Your task to perform on an android device: set the timer Image 0: 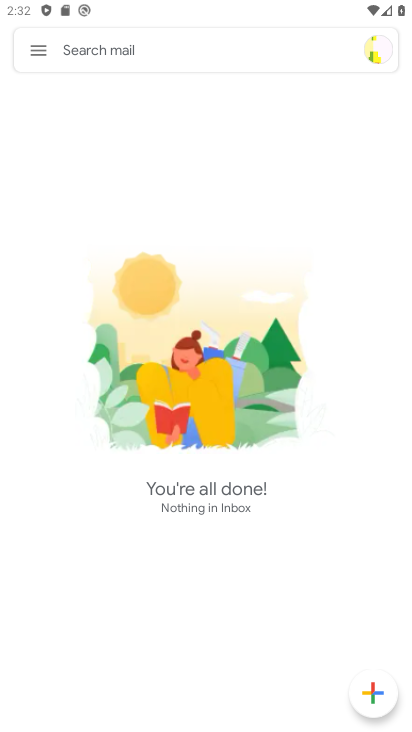
Step 0: press home button
Your task to perform on an android device: set the timer Image 1: 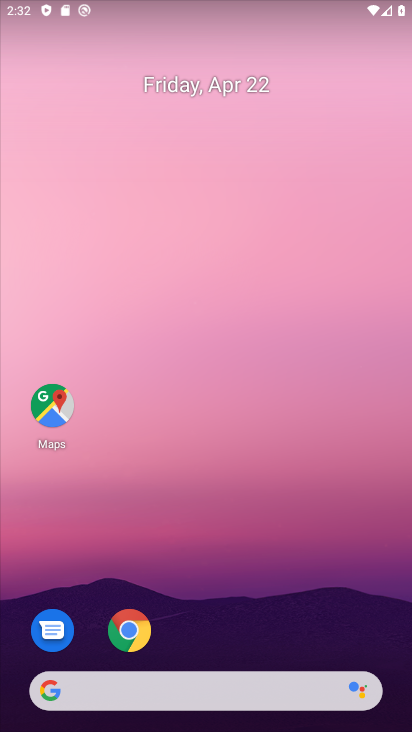
Step 1: drag from (396, 640) to (371, 153)
Your task to perform on an android device: set the timer Image 2: 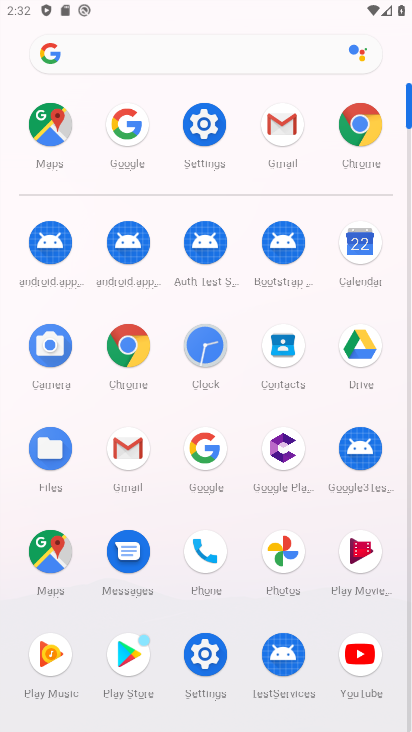
Step 2: click (202, 355)
Your task to perform on an android device: set the timer Image 3: 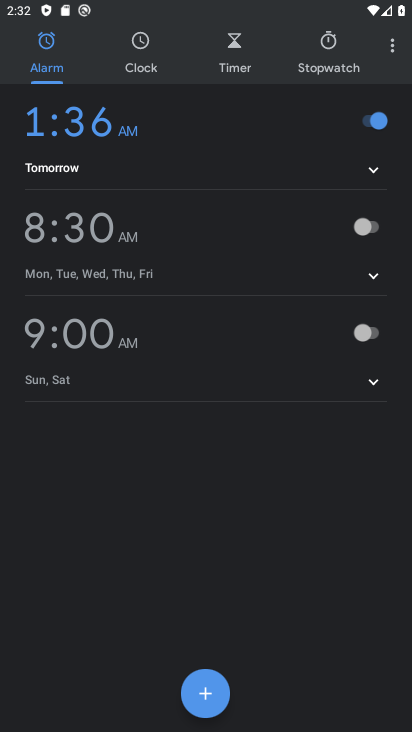
Step 3: click (241, 39)
Your task to perform on an android device: set the timer Image 4: 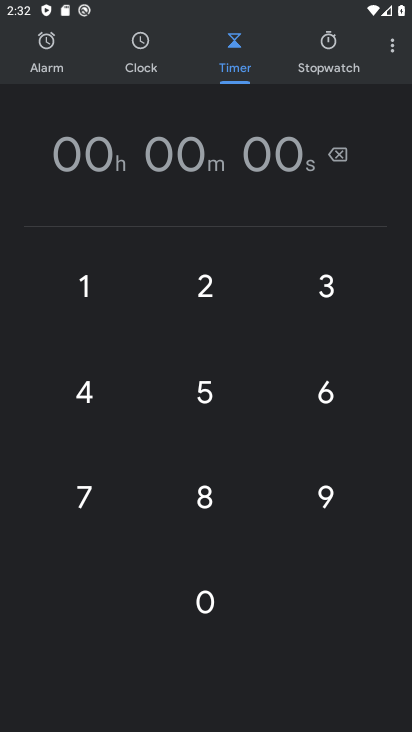
Step 4: click (106, 291)
Your task to perform on an android device: set the timer Image 5: 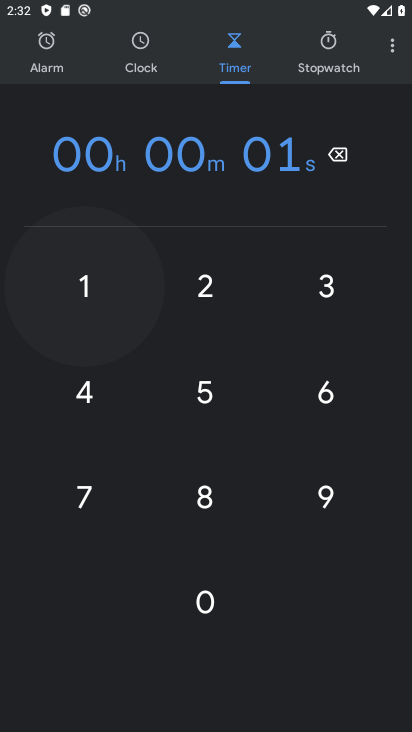
Step 5: click (197, 403)
Your task to perform on an android device: set the timer Image 6: 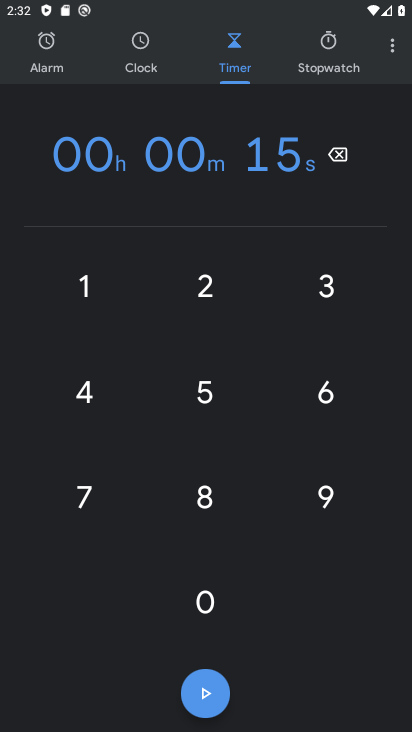
Step 6: click (206, 686)
Your task to perform on an android device: set the timer Image 7: 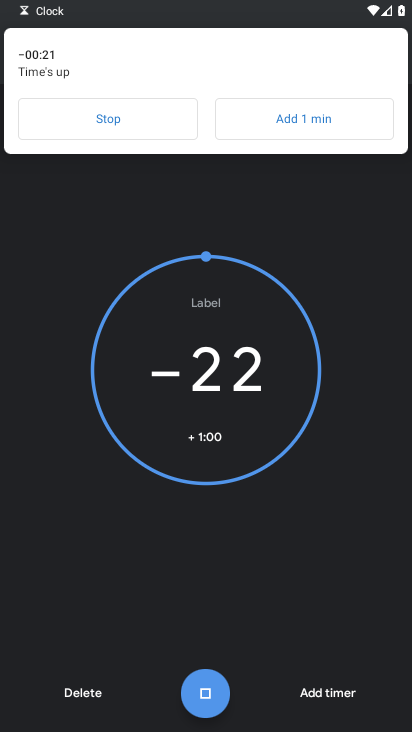
Step 7: click (81, 130)
Your task to perform on an android device: set the timer Image 8: 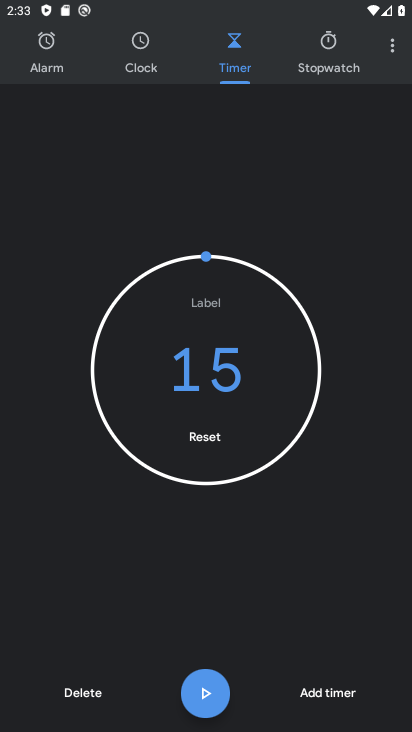
Step 8: task complete